Your task to perform on an android device: add a label to a message in the gmail app Image 0: 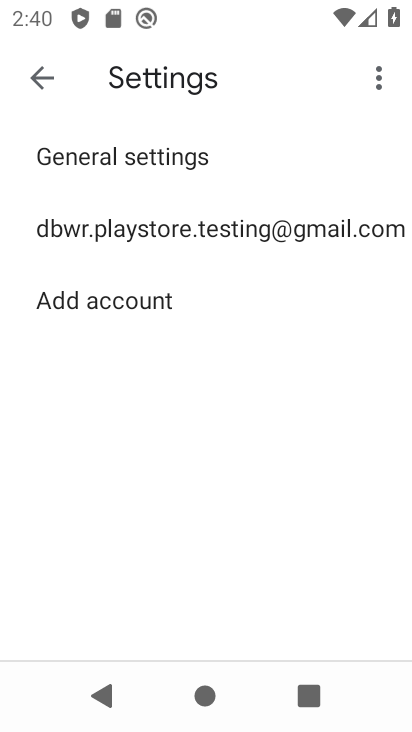
Step 0: press home button
Your task to perform on an android device: add a label to a message in the gmail app Image 1: 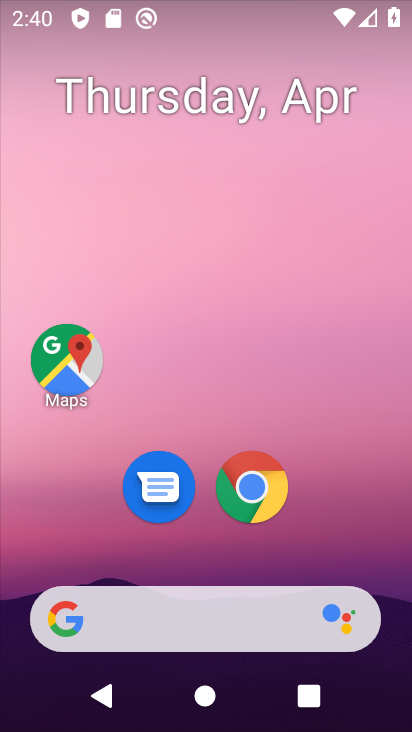
Step 1: drag from (272, 577) to (310, 240)
Your task to perform on an android device: add a label to a message in the gmail app Image 2: 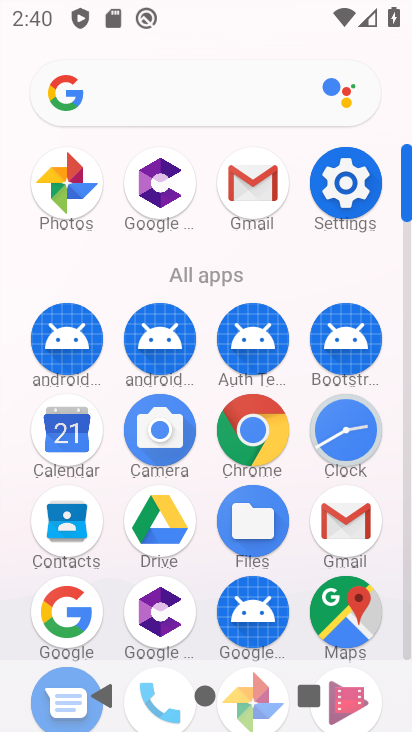
Step 2: click (345, 535)
Your task to perform on an android device: add a label to a message in the gmail app Image 3: 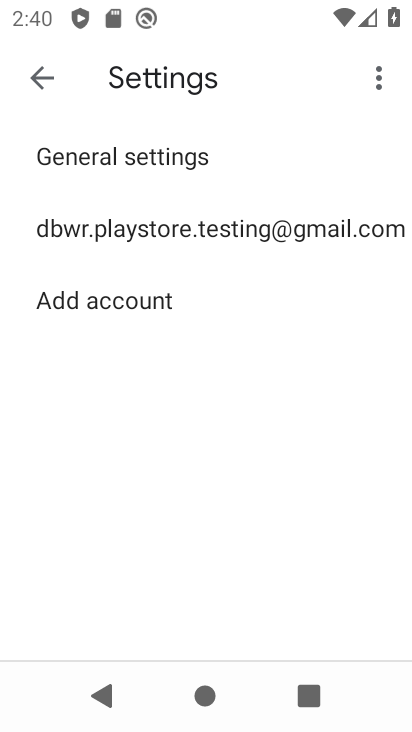
Step 3: click (51, 76)
Your task to perform on an android device: add a label to a message in the gmail app Image 4: 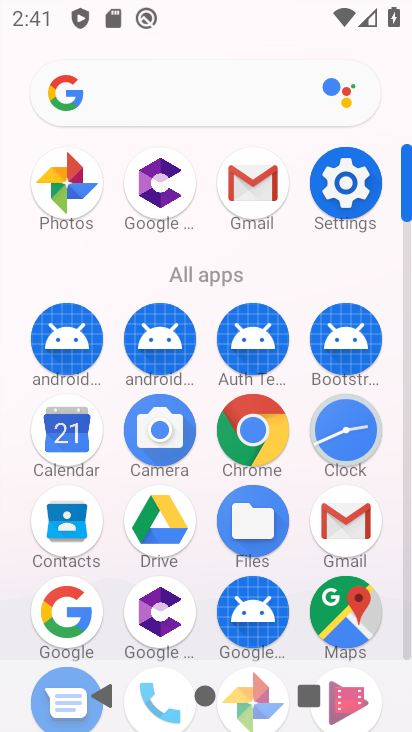
Step 4: click (333, 536)
Your task to perform on an android device: add a label to a message in the gmail app Image 5: 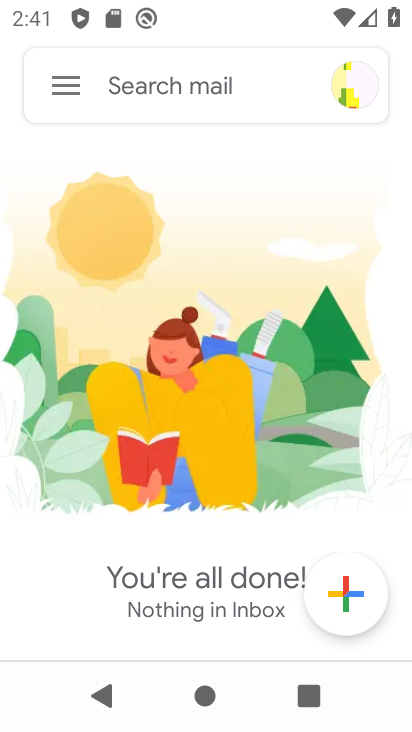
Step 5: click (63, 90)
Your task to perform on an android device: add a label to a message in the gmail app Image 6: 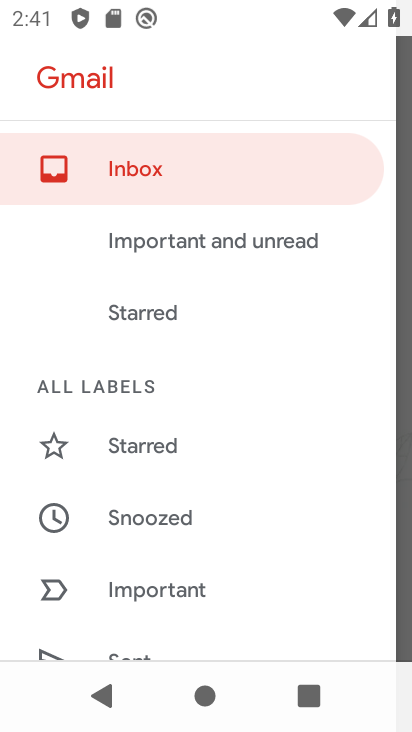
Step 6: drag from (157, 457) to (195, 287)
Your task to perform on an android device: add a label to a message in the gmail app Image 7: 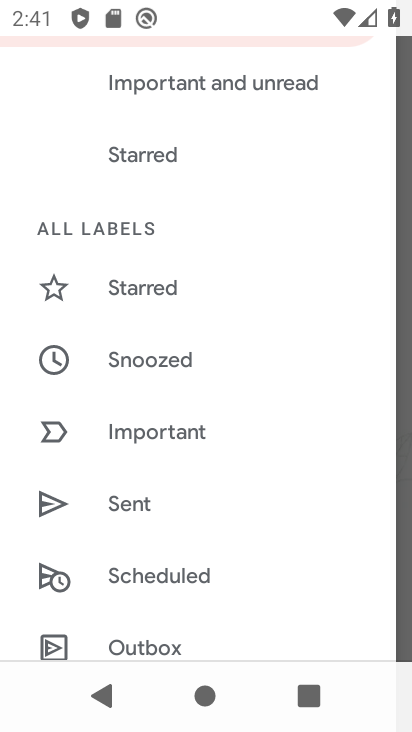
Step 7: drag from (193, 585) to (258, 253)
Your task to perform on an android device: add a label to a message in the gmail app Image 8: 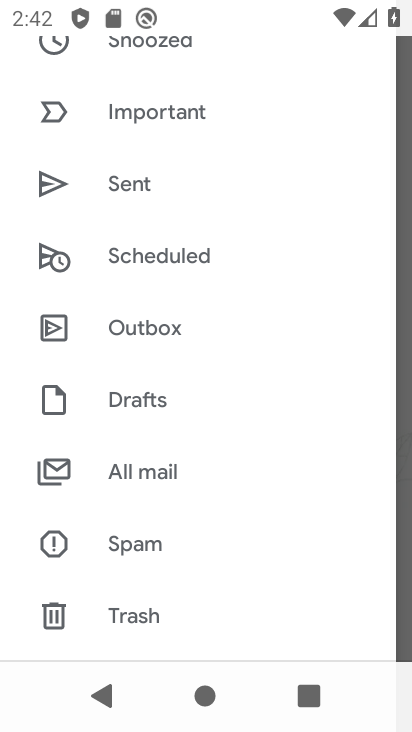
Step 8: click (181, 484)
Your task to perform on an android device: add a label to a message in the gmail app Image 9: 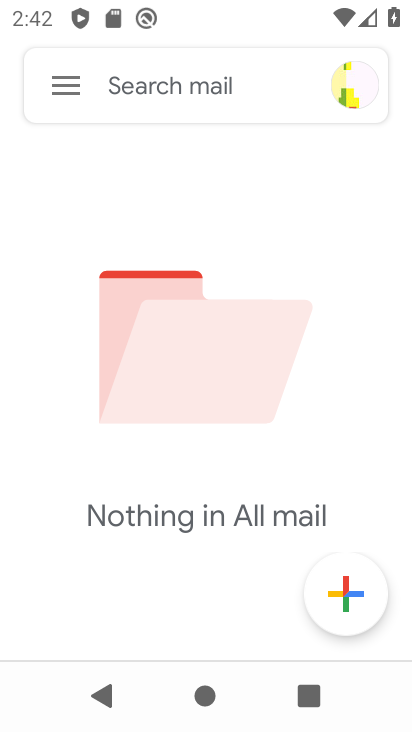
Step 9: task complete